Your task to perform on an android device: clear history in the chrome app Image 0: 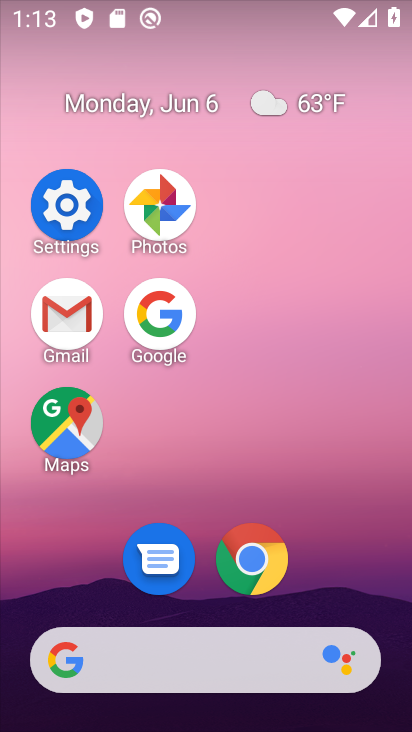
Step 0: click (255, 554)
Your task to perform on an android device: clear history in the chrome app Image 1: 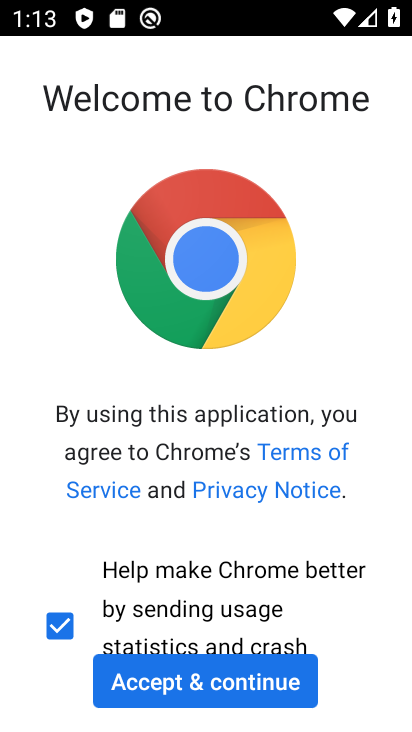
Step 1: click (269, 702)
Your task to perform on an android device: clear history in the chrome app Image 2: 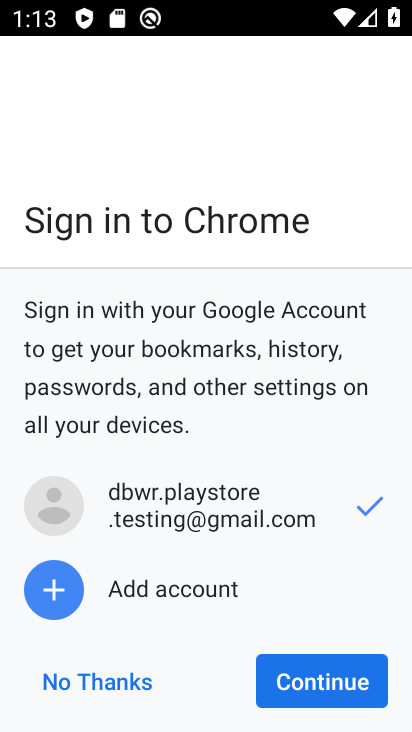
Step 2: click (334, 690)
Your task to perform on an android device: clear history in the chrome app Image 3: 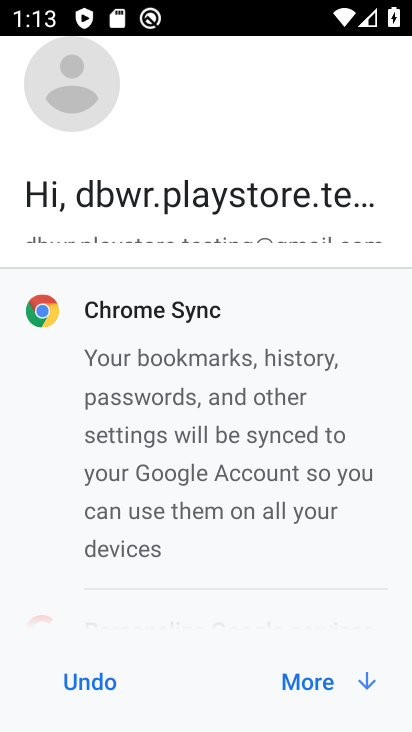
Step 3: click (334, 690)
Your task to perform on an android device: clear history in the chrome app Image 4: 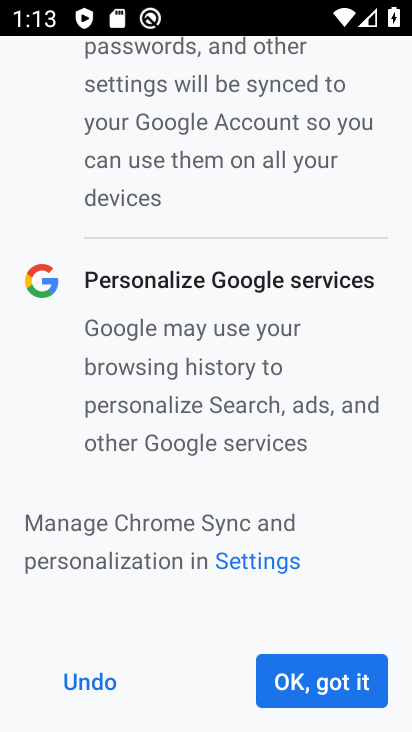
Step 4: click (334, 690)
Your task to perform on an android device: clear history in the chrome app Image 5: 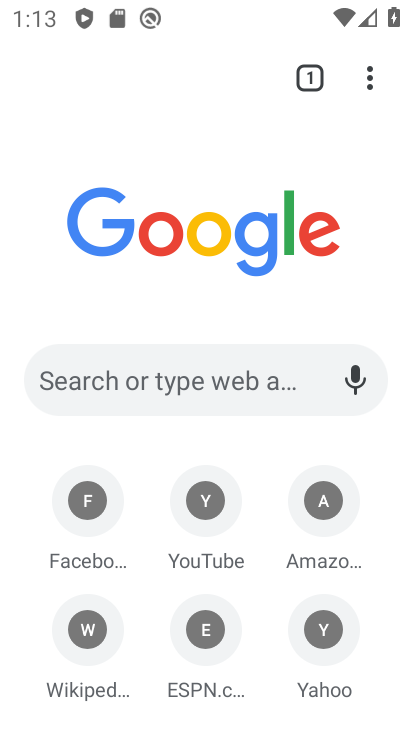
Step 5: click (372, 83)
Your task to perform on an android device: clear history in the chrome app Image 6: 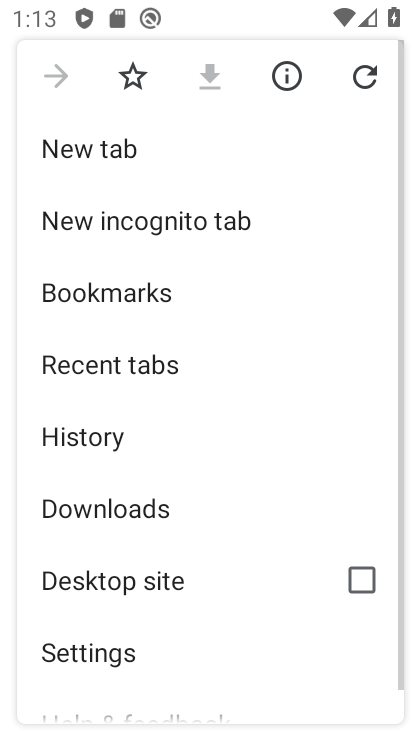
Step 6: click (158, 452)
Your task to perform on an android device: clear history in the chrome app Image 7: 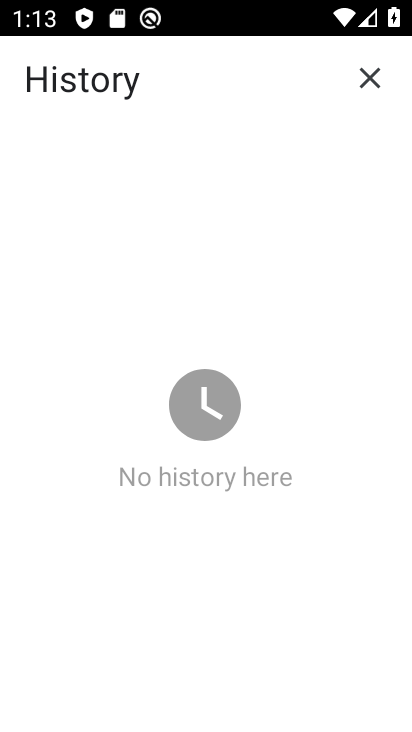
Step 7: task complete